Your task to perform on an android device: Go to ESPN.com Image 0: 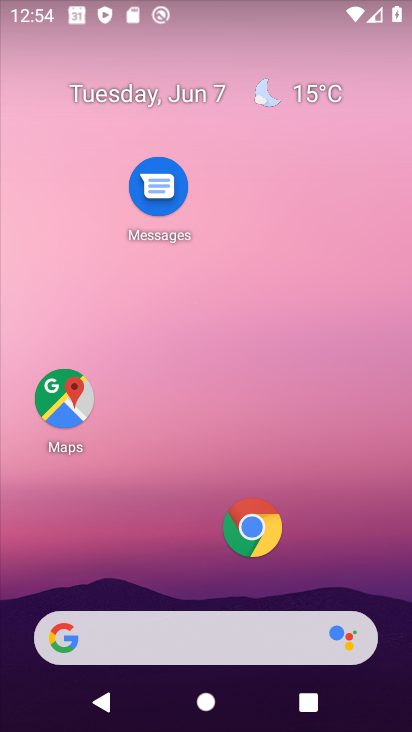
Step 0: click (275, 518)
Your task to perform on an android device: Go to ESPN.com Image 1: 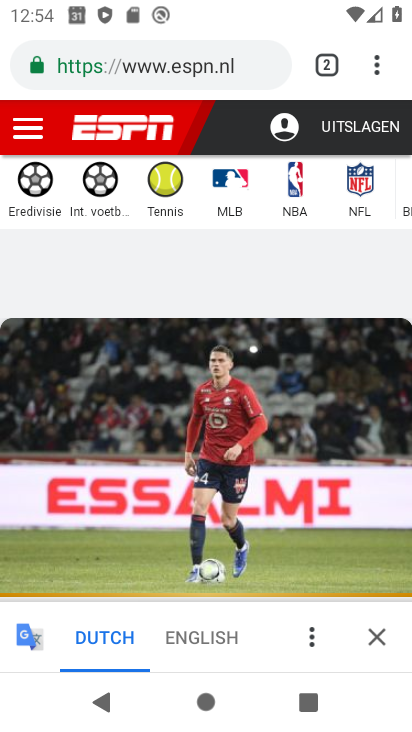
Step 1: task complete